Your task to perform on an android device: Open settings on Google Maps Image 0: 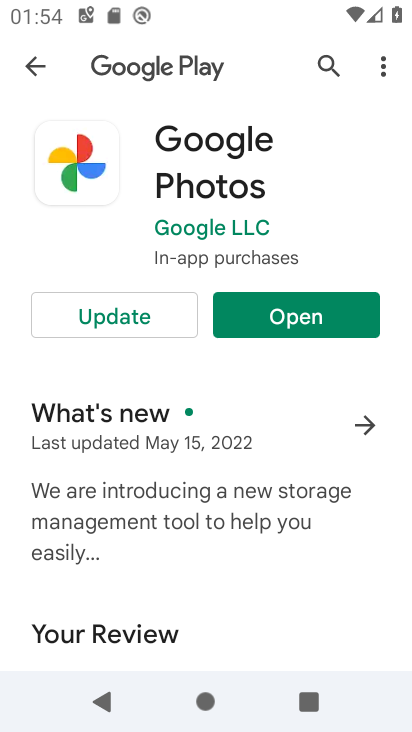
Step 0: press home button
Your task to perform on an android device: Open settings on Google Maps Image 1: 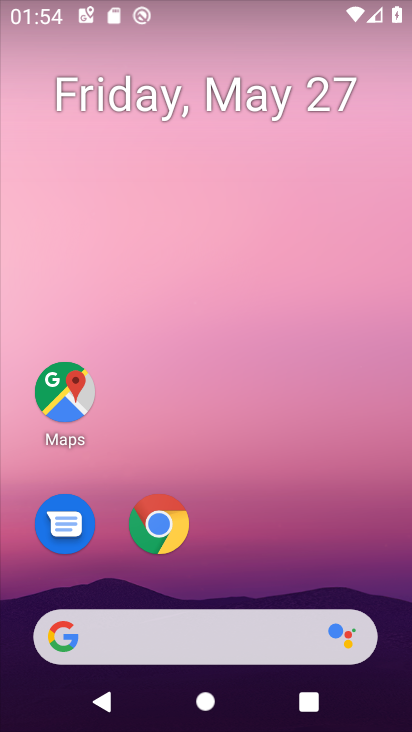
Step 1: click (65, 395)
Your task to perform on an android device: Open settings on Google Maps Image 2: 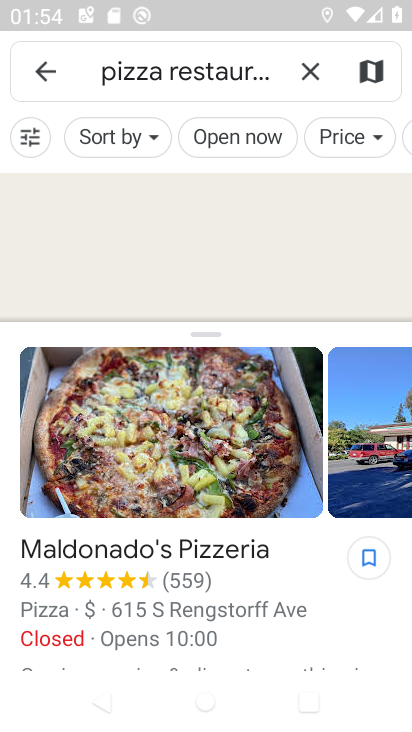
Step 2: click (48, 68)
Your task to perform on an android device: Open settings on Google Maps Image 3: 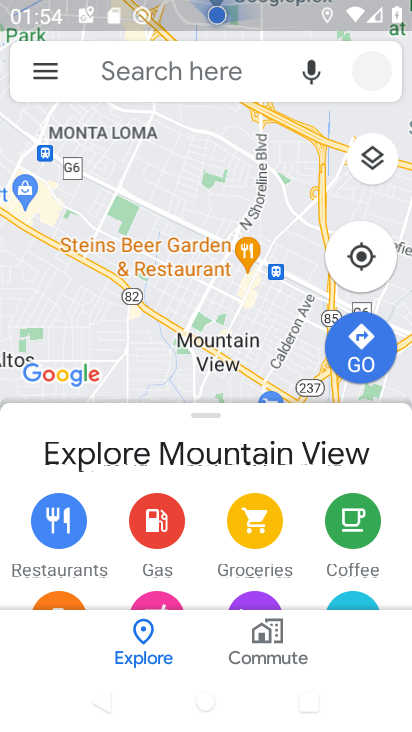
Step 3: click (48, 68)
Your task to perform on an android device: Open settings on Google Maps Image 4: 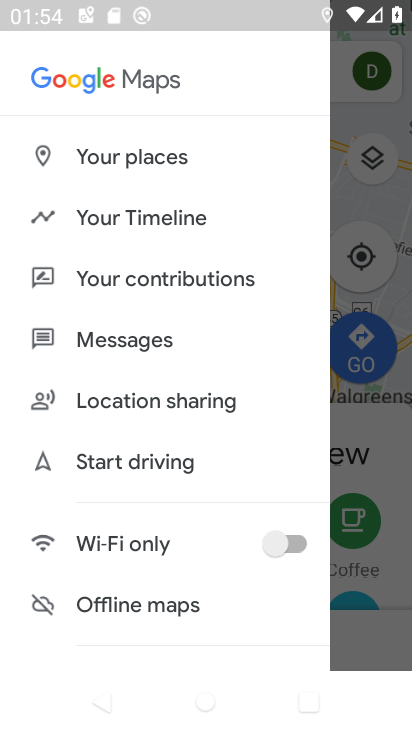
Step 4: drag from (162, 539) to (238, 26)
Your task to perform on an android device: Open settings on Google Maps Image 5: 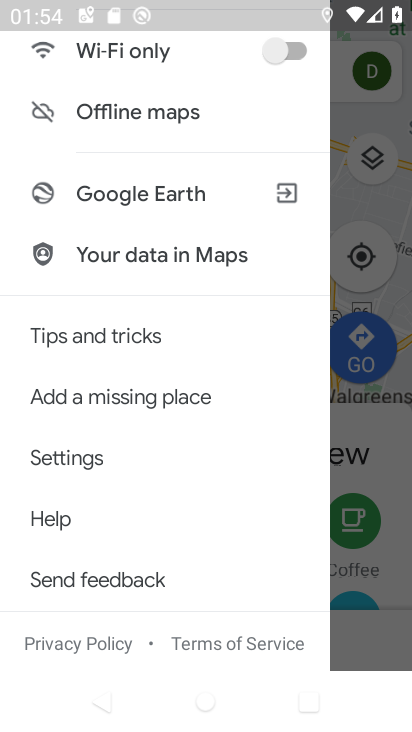
Step 5: click (132, 448)
Your task to perform on an android device: Open settings on Google Maps Image 6: 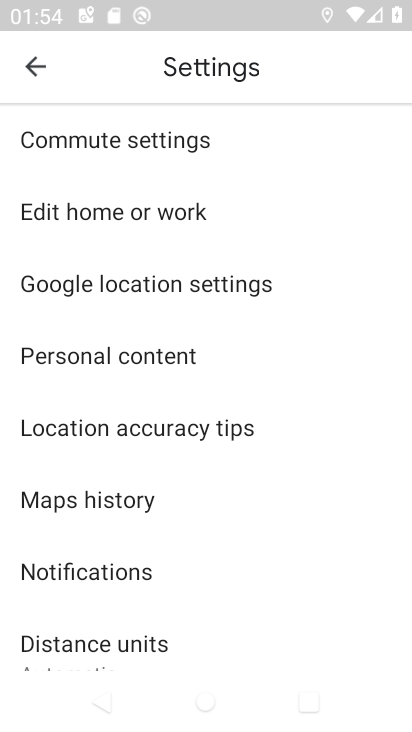
Step 6: task complete